Your task to perform on an android device: turn notification dots off Image 0: 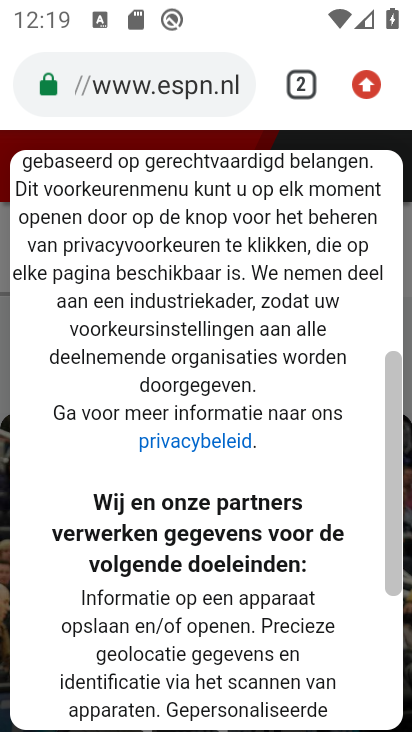
Step 0: press home button
Your task to perform on an android device: turn notification dots off Image 1: 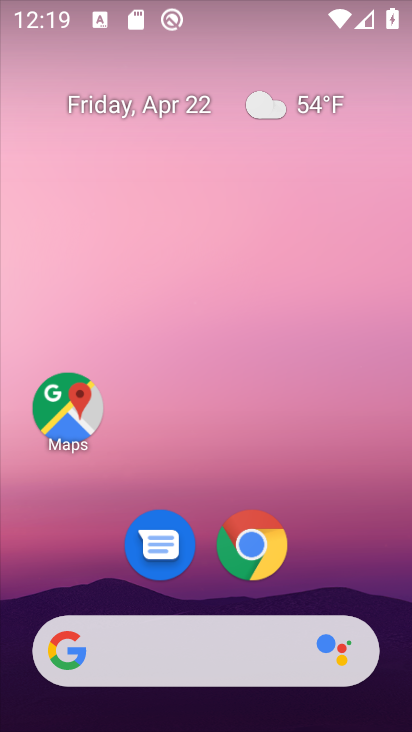
Step 1: drag from (331, 485) to (271, 184)
Your task to perform on an android device: turn notification dots off Image 2: 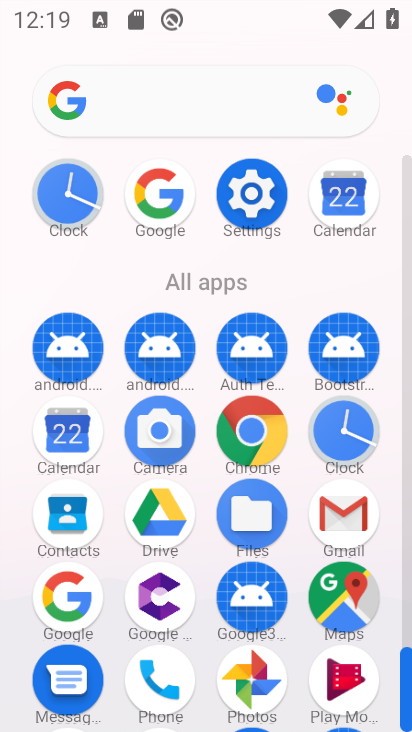
Step 2: click (245, 216)
Your task to perform on an android device: turn notification dots off Image 3: 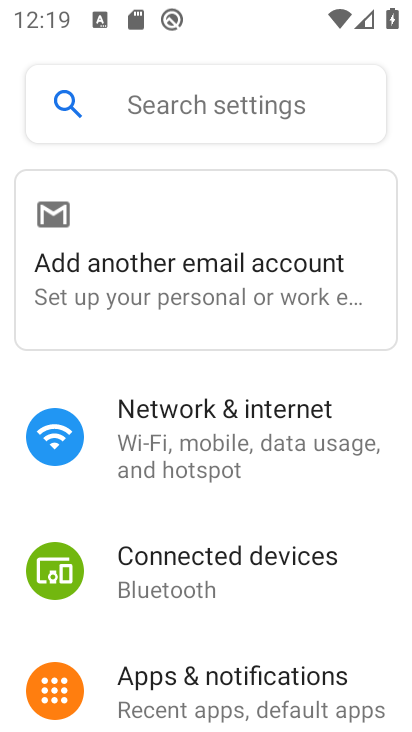
Step 3: drag from (200, 517) to (206, 201)
Your task to perform on an android device: turn notification dots off Image 4: 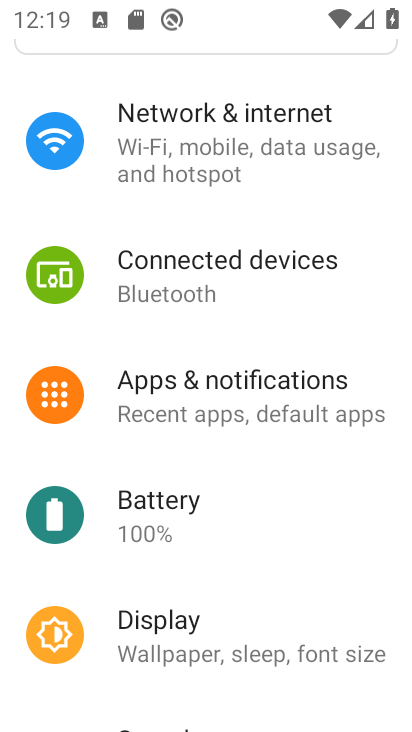
Step 4: click (244, 393)
Your task to perform on an android device: turn notification dots off Image 5: 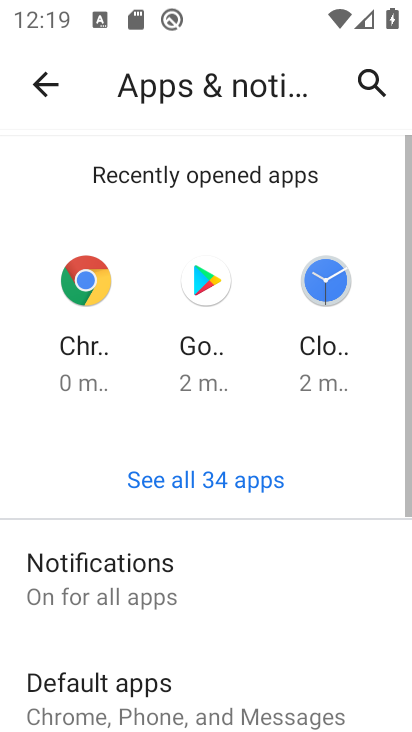
Step 5: click (198, 580)
Your task to perform on an android device: turn notification dots off Image 6: 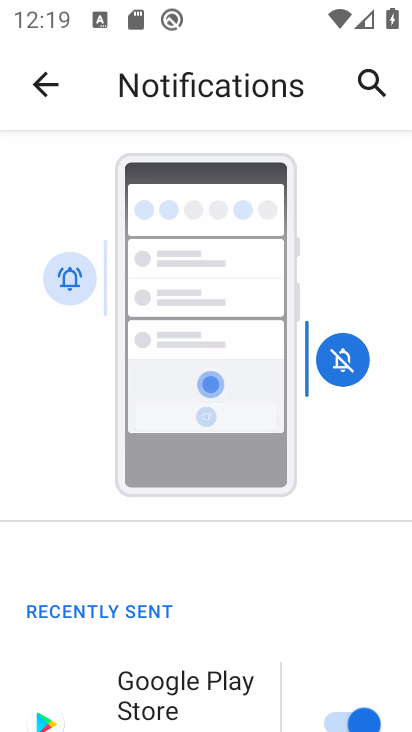
Step 6: drag from (177, 636) to (234, 218)
Your task to perform on an android device: turn notification dots off Image 7: 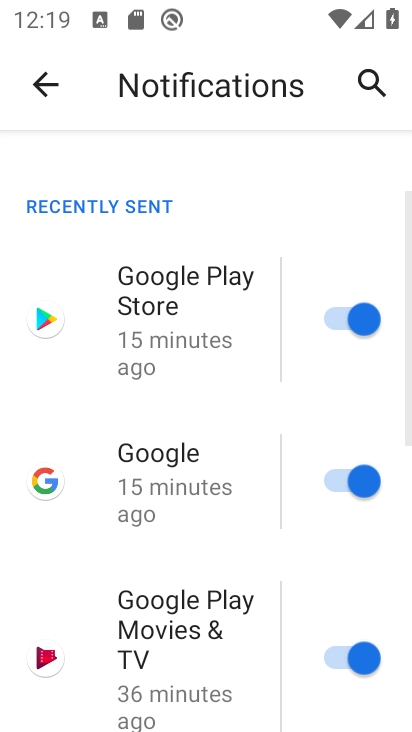
Step 7: drag from (246, 593) to (243, 214)
Your task to perform on an android device: turn notification dots off Image 8: 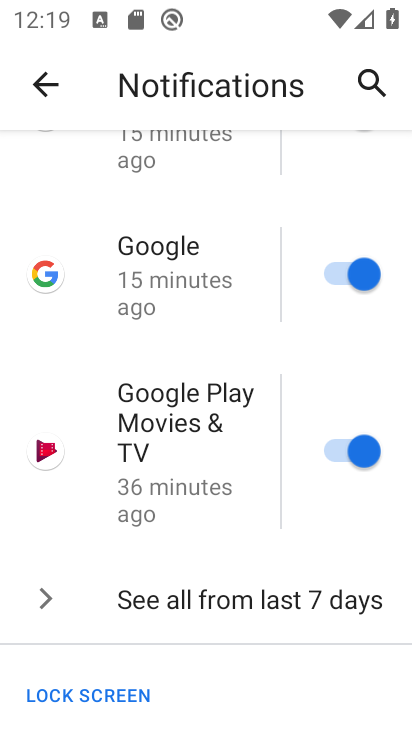
Step 8: drag from (179, 584) to (242, 207)
Your task to perform on an android device: turn notification dots off Image 9: 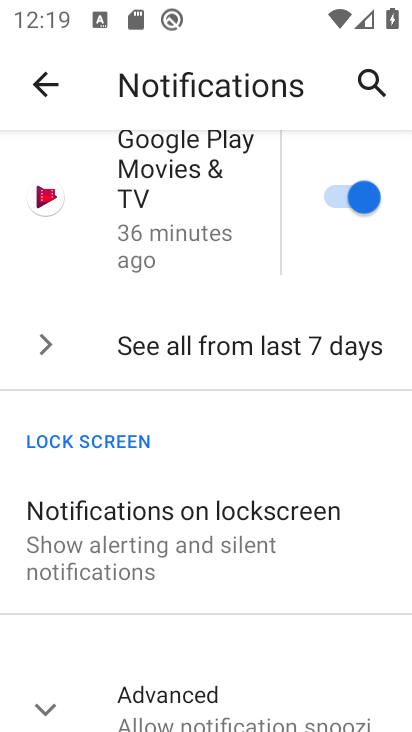
Step 9: drag from (221, 595) to (221, 341)
Your task to perform on an android device: turn notification dots off Image 10: 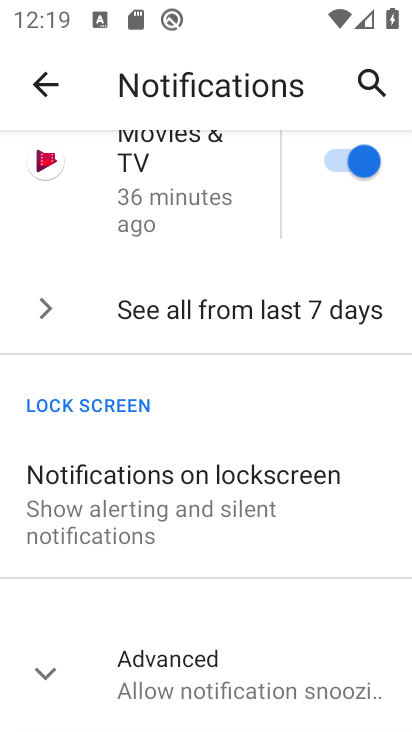
Step 10: click (206, 655)
Your task to perform on an android device: turn notification dots off Image 11: 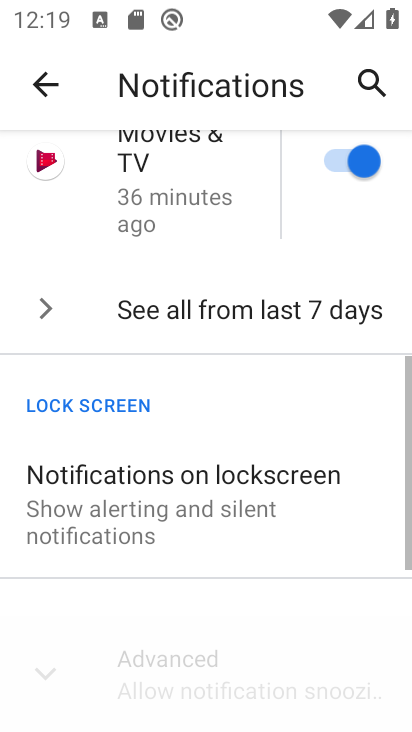
Step 11: task complete